Your task to perform on an android device: Check the weather Image 0: 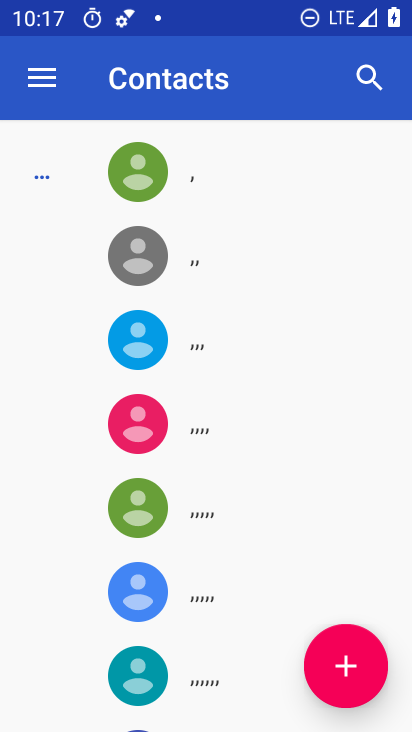
Step 0: press home button
Your task to perform on an android device: Check the weather Image 1: 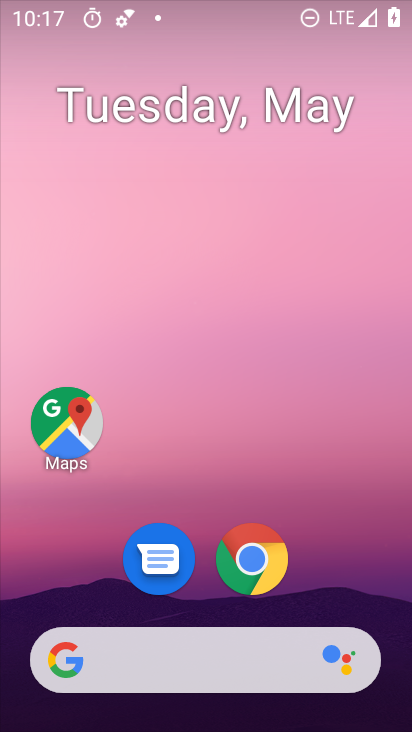
Step 1: drag from (373, 432) to (268, 56)
Your task to perform on an android device: Check the weather Image 2: 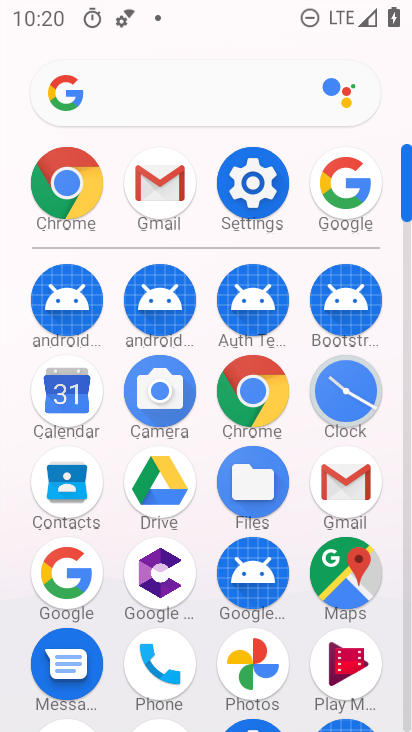
Step 2: click (86, 587)
Your task to perform on an android device: Check the weather Image 3: 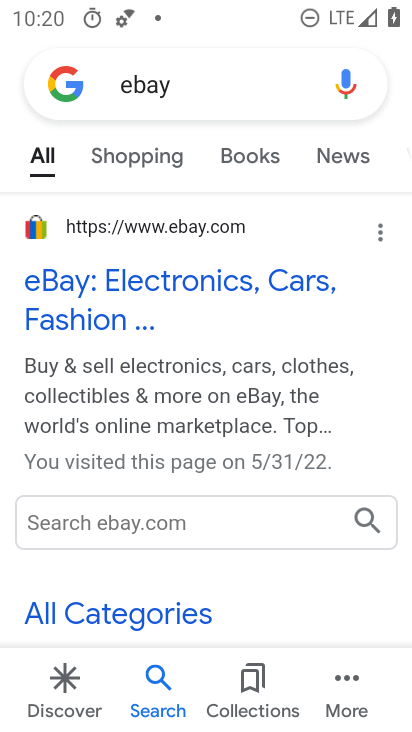
Step 3: press back button
Your task to perform on an android device: Check the weather Image 4: 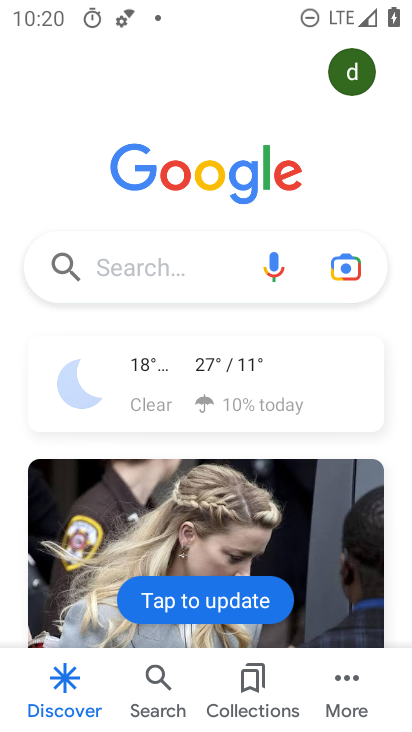
Step 4: click (115, 284)
Your task to perform on an android device: Check the weather Image 5: 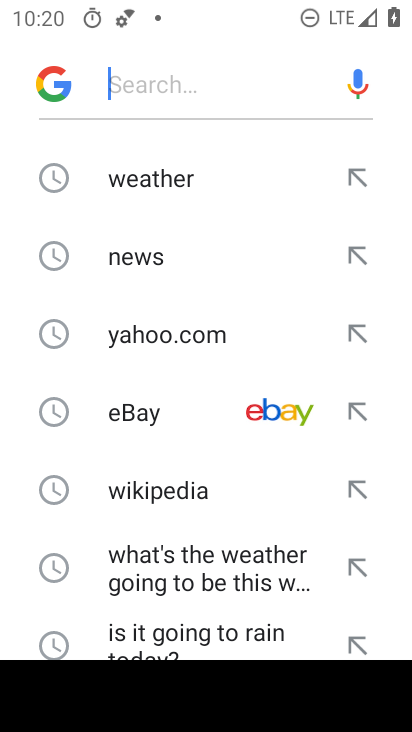
Step 5: click (175, 190)
Your task to perform on an android device: Check the weather Image 6: 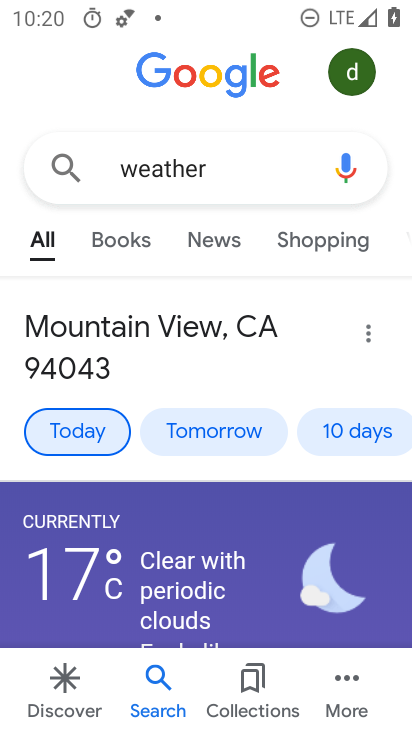
Step 6: task complete